Your task to perform on an android device: turn vacation reply on in the gmail app Image 0: 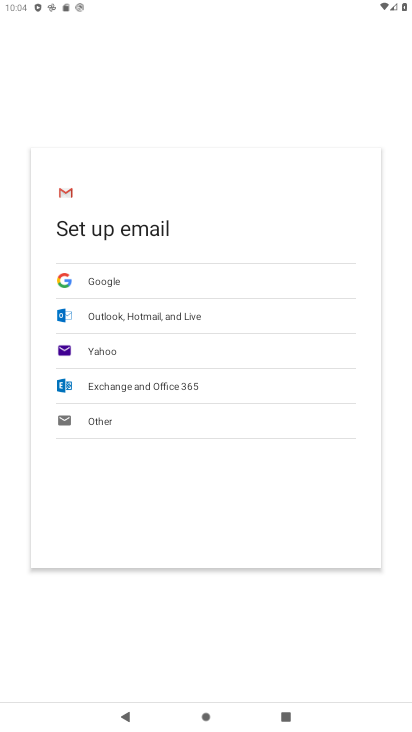
Step 0: press home button
Your task to perform on an android device: turn vacation reply on in the gmail app Image 1: 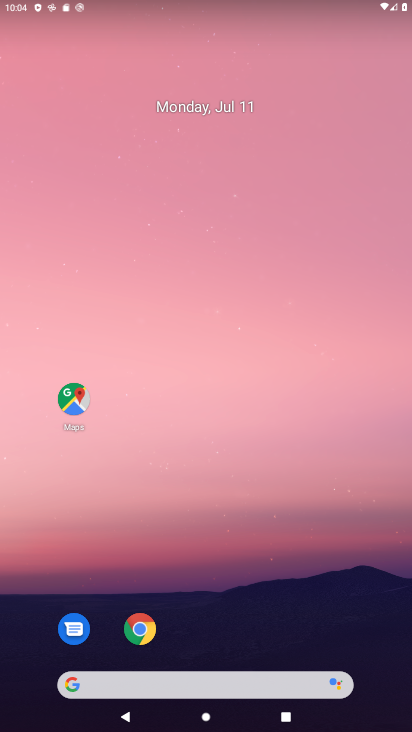
Step 1: drag from (283, 527) to (243, 64)
Your task to perform on an android device: turn vacation reply on in the gmail app Image 2: 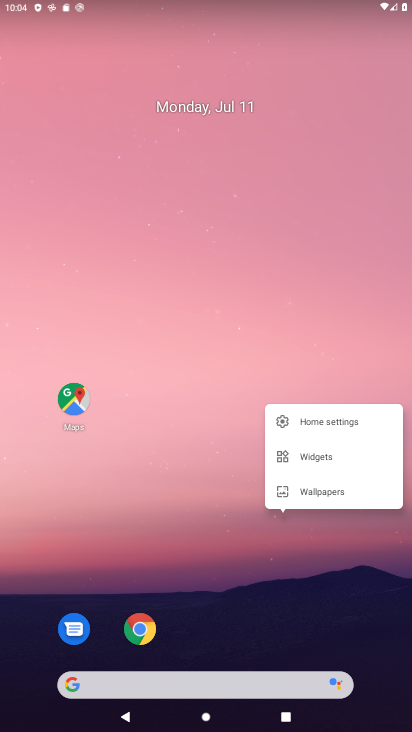
Step 2: click (149, 456)
Your task to perform on an android device: turn vacation reply on in the gmail app Image 3: 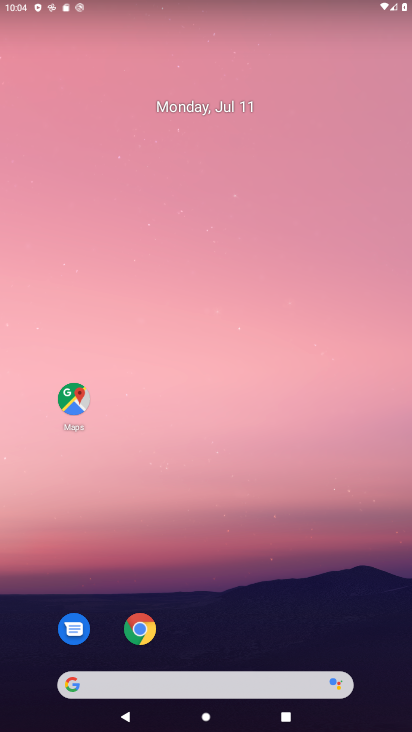
Step 3: drag from (235, 610) to (213, 145)
Your task to perform on an android device: turn vacation reply on in the gmail app Image 4: 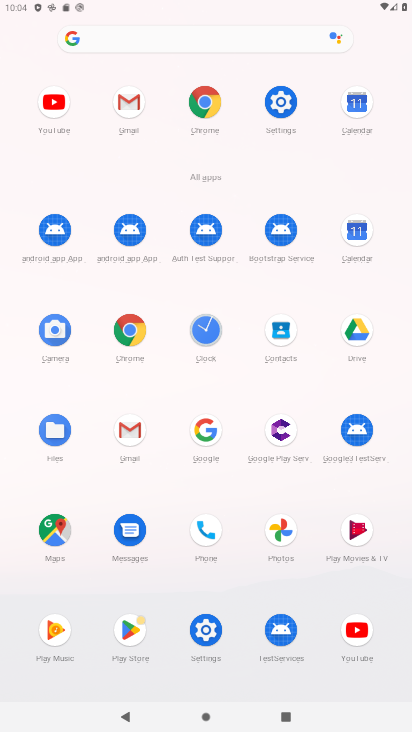
Step 4: click (130, 118)
Your task to perform on an android device: turn vacation reply on in the gmail app Image 5: 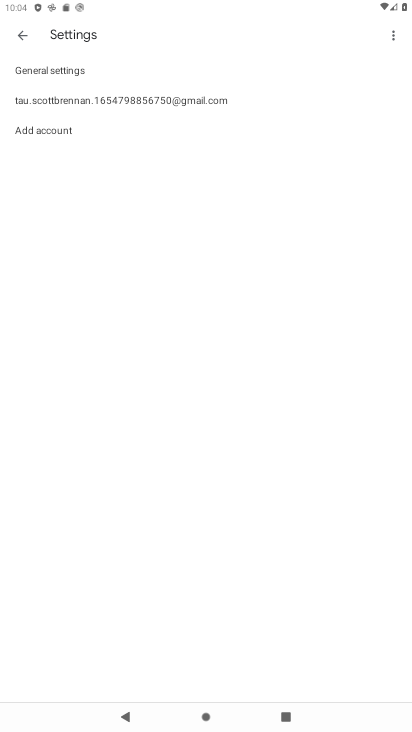
Step 5: click (29, 103)
Your task to perform on an android device: turn vacation reply on in the gmail app Image 6: 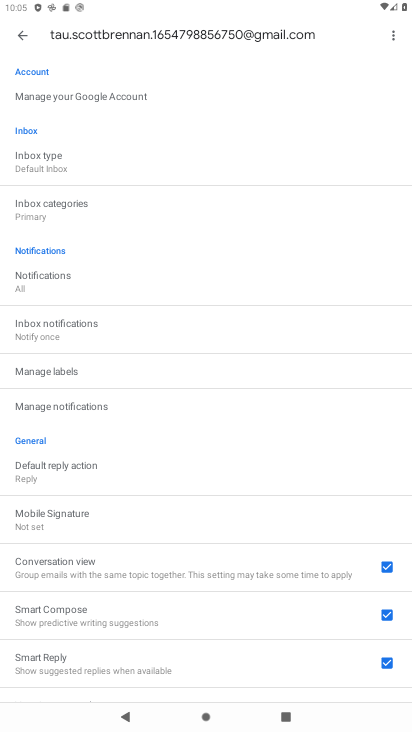
Step 6: drag from (101, 598) to (101, 261)
Your task to perform on an android device: turn vacation reply on in the gmail app Image 7: 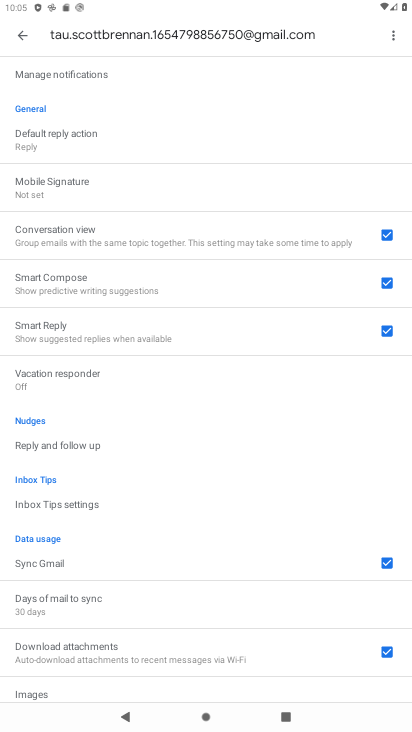
Step 7: drag from (187, 542) to (186, 191)
Your task to perform on an android device: turn vacation reply on in the gmail app Image 8: 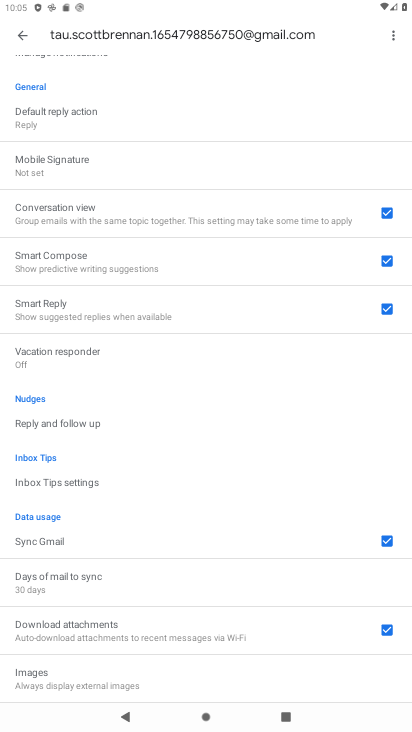
Step 8: click (144, 352)
Your task to perform on an android device: turn vacation reply on in the gmail app Image 9: 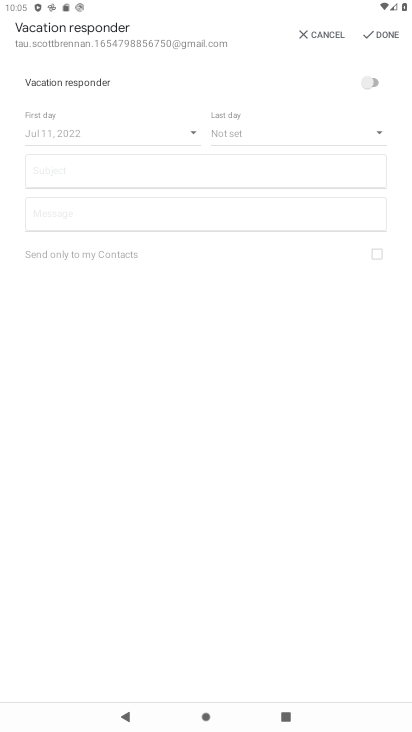
Step 9: click (364, 74)
Your task to perform on an android device: turn vacation reply on in the gmail app Image 10: 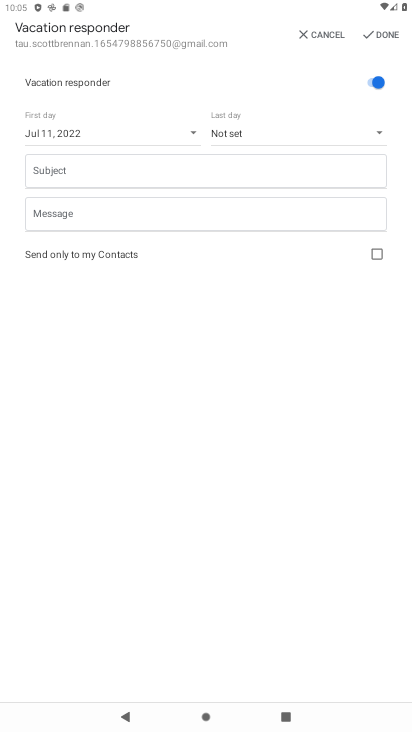
Step 10: click (381, 48)
Your task to perform on an android device: turn vacation reply on in the gmail app Image 11: 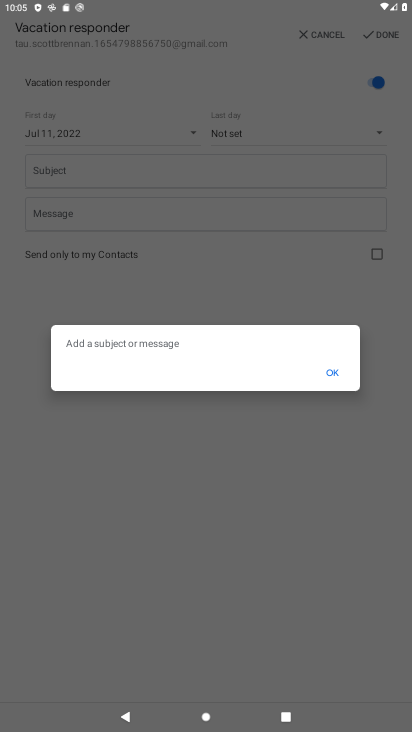
Step 11: task complete